Your task to perform on an android device: Go to internet settings Image 0: 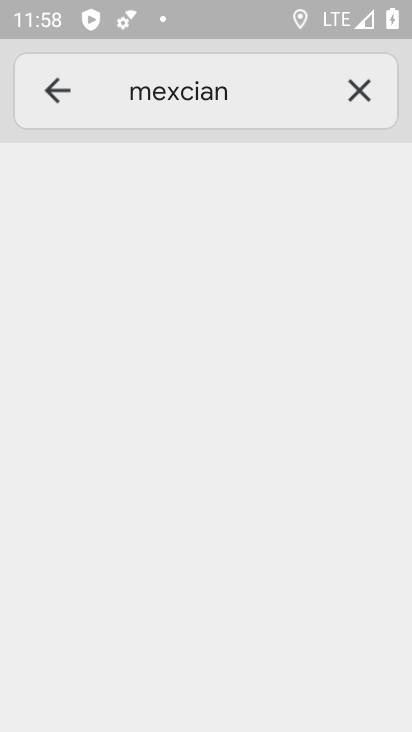
Step 0: press home button
Your task to perform on an android device: Go to internet settings Image 1: 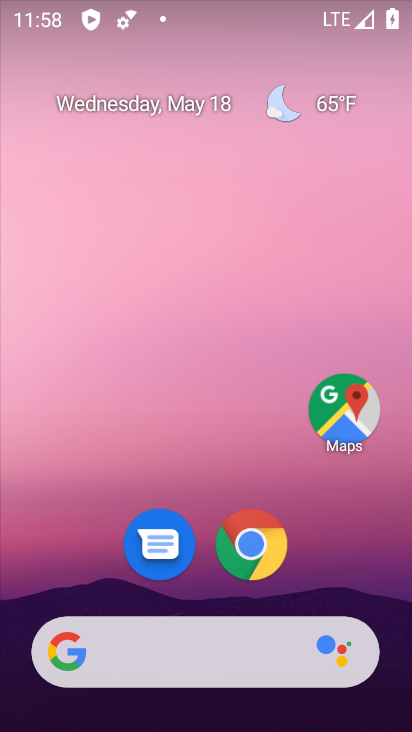
Step 1: drag from (384, 565) to (391, 185)
Your task to perform on an android device: Go to internet settings Image 2: 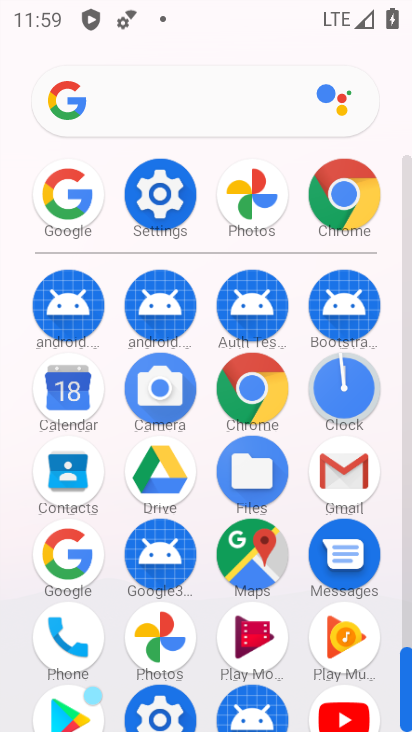
Step 2: click (171, 214)
Your task to perform on an android device: Go to internet settings Image 3: 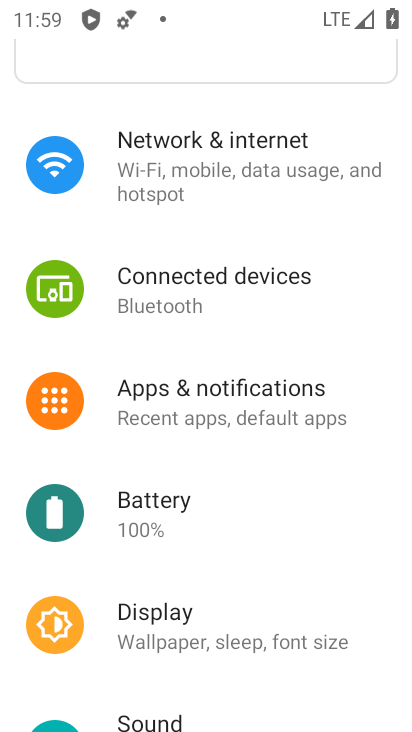
Step 3: click (243, 173)
Your task to perform on an android device: Go to internet settings Image 4: 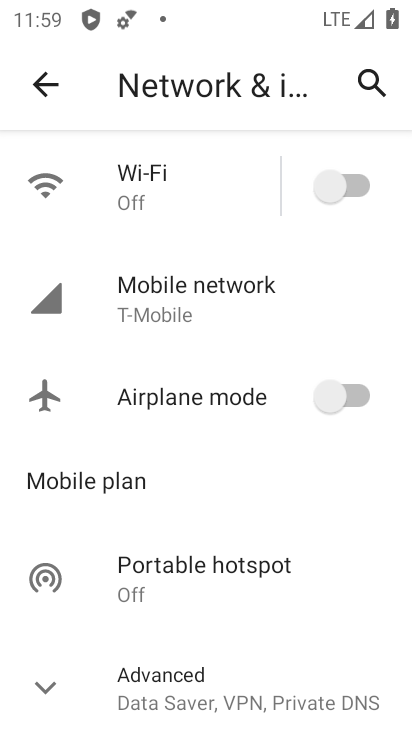
Step 4: task complete